Your task to perform on an android device: Go to Amazon Image 0: 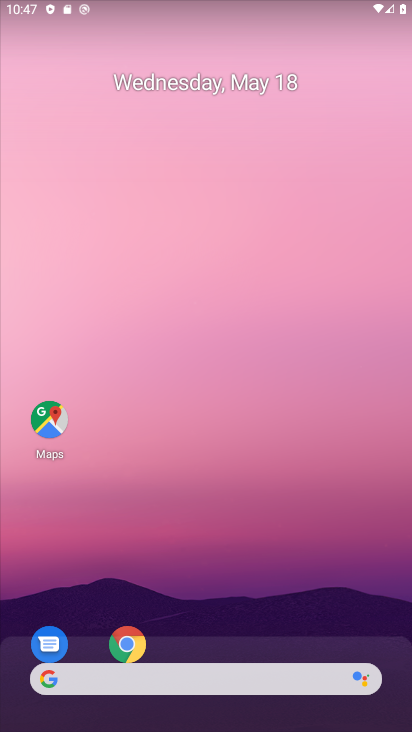
Step 0: click (132, 650)
Your task to perform on an android device: Go to Amazon Image 1: 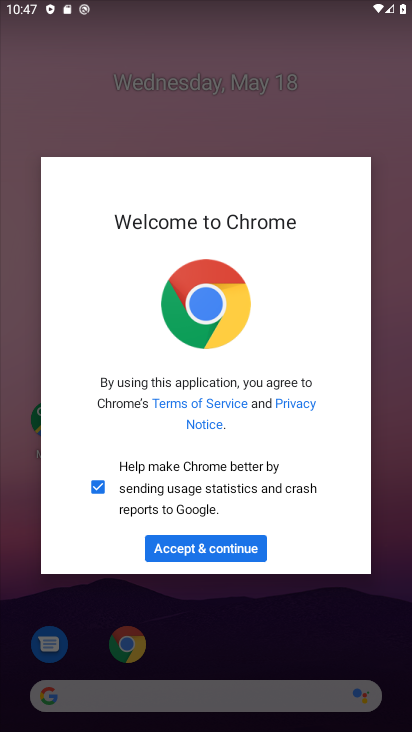
Step 1: click (228, 553)
Your task to perform on an android device: Go to Amazon Image 2: 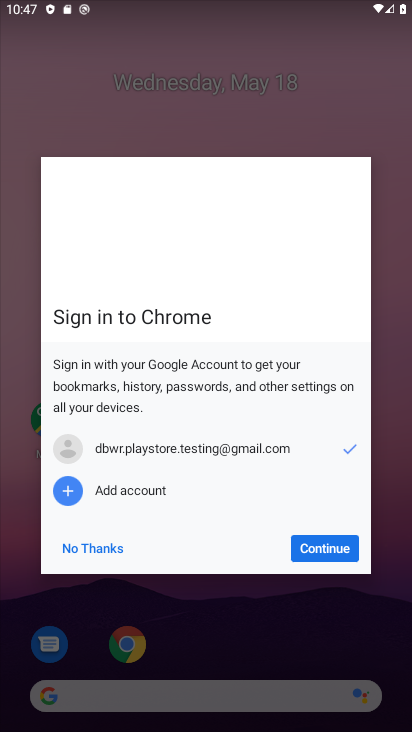
Step 2: click (327, 563)
Your task to perform on an android device: Go to Amazon Image 3: 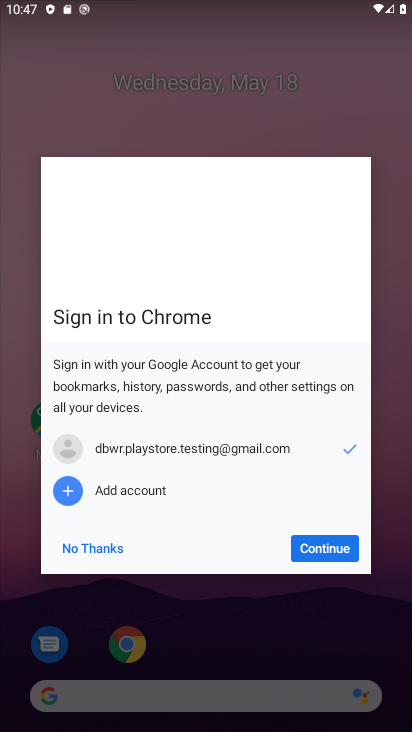
Step 3: click (327, 558)
Your task to perform on an android device: Go to Amazon Image 4: 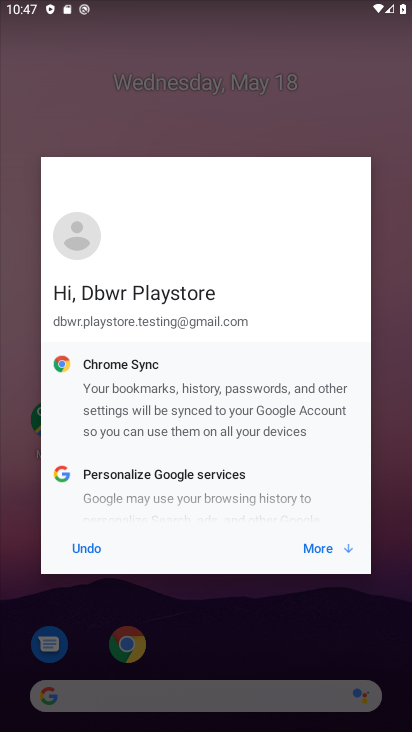
Step 4: click (322, 550)
Your task to perform on an android device: Go to Amazon Image 5: 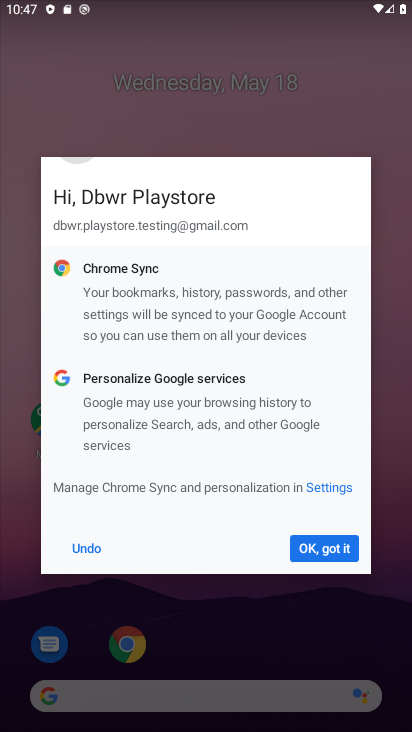
Step 5: click (304, 552)
Your task to perform on an android device: Go to Amazon Image 6: 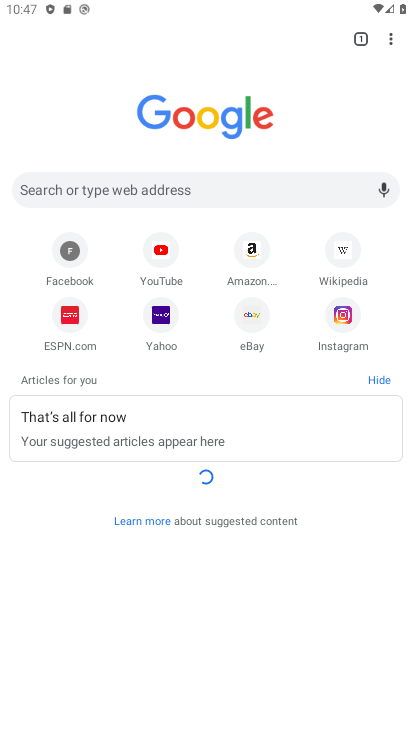
Step 6: click (251, 254)
Your task to perform on an android device: Go to Amazon Image 7: 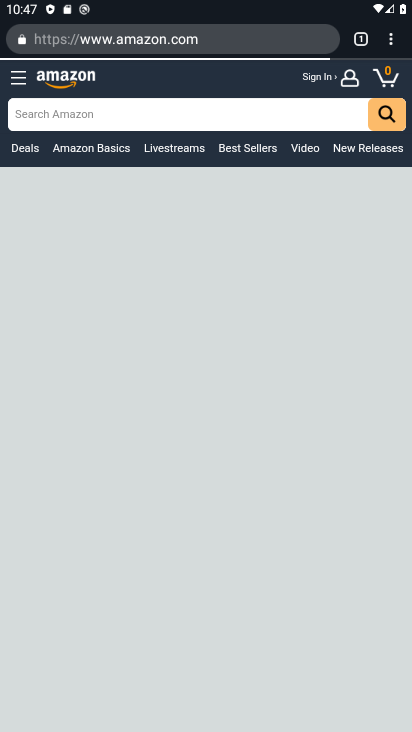
Step 7: task complete